Your task to perform on an android device: open chrome and create a bookmark for the current page Image 0: 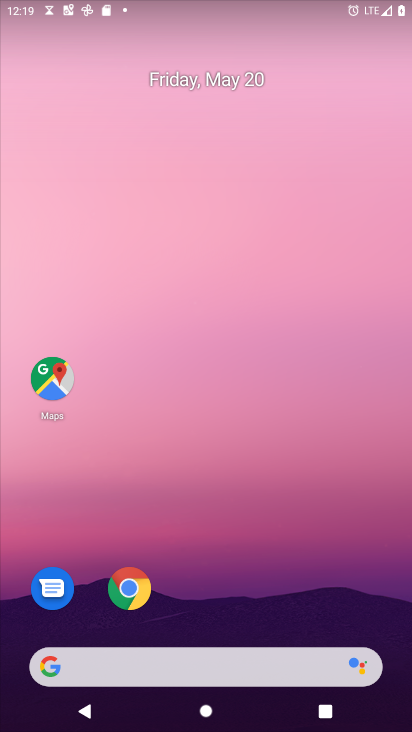
Step 0: click (139, 577)
Your task to perform on an android device: open chrome and create a bookmark for the current page Image 1: 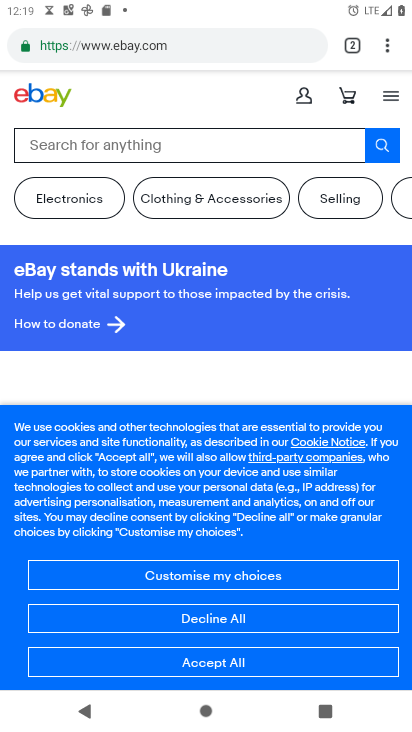
Step 1: click (380, 41)
Your task to perform on an android device: open chrome and create a bookmark for the current page Image 2: 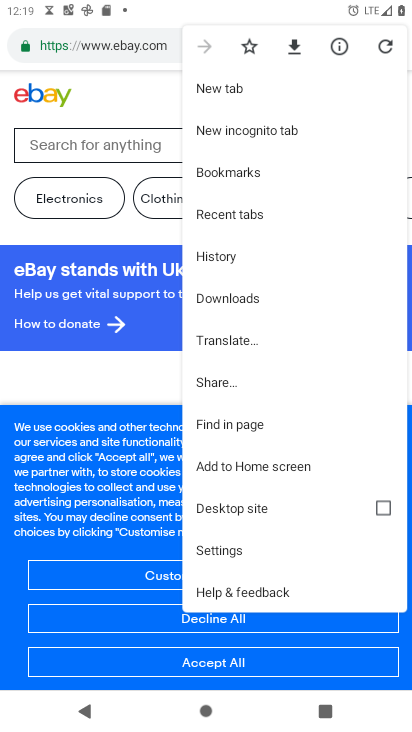
Step 2: click (249, 46)
Your task to perform on an android device: open chrome and create a bookmark for the current page Image 3: 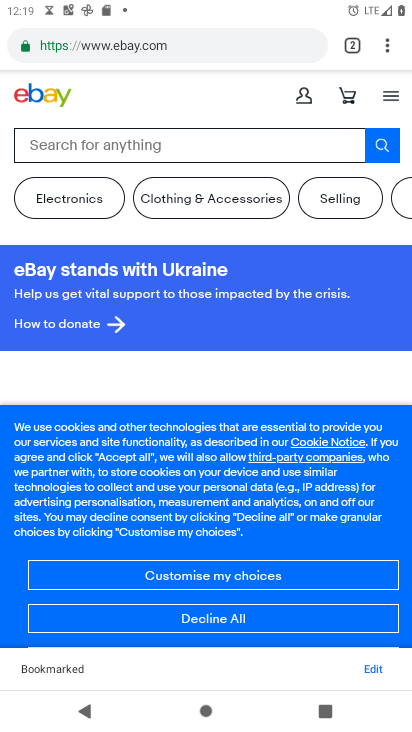
Step 3: task complete